Your task to perform on an android device: Open location settings Image 0: 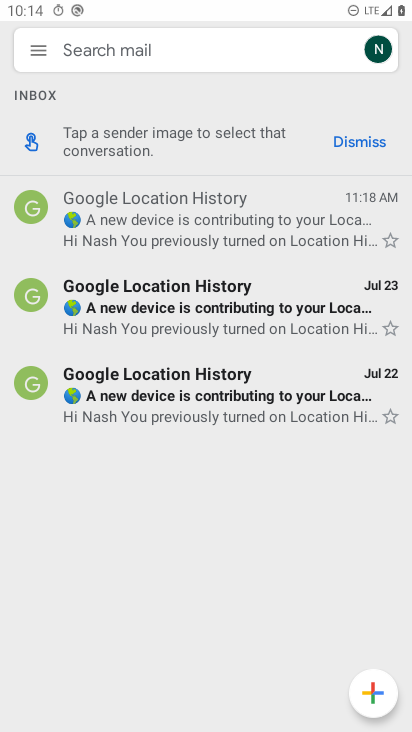
Step 0: press home button
Your task to perform on an android device: Open location settings Image 1: 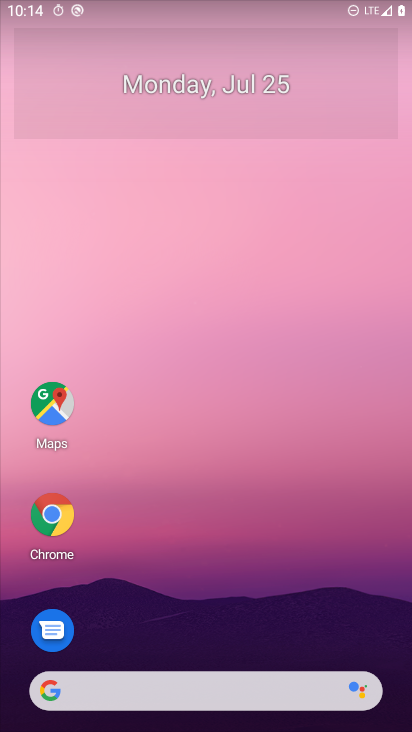
Step 1: drag from (23, 695) to (192, 173)
Your task to perform on an android device: Open location settings Image 2: 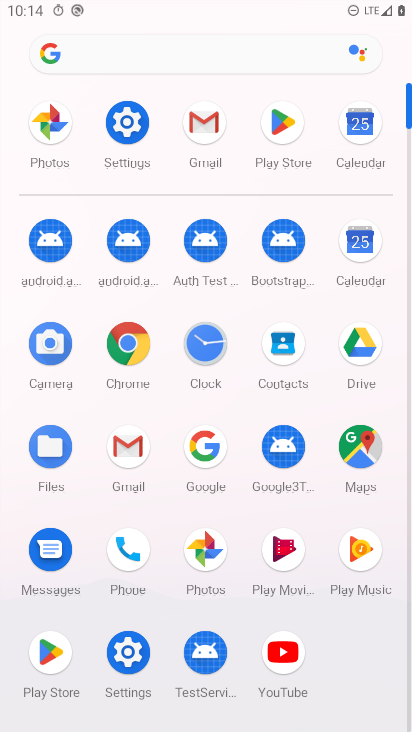
Step 2: click (126, 676)
Your task to perform on an android device: Open location settings Image 3: 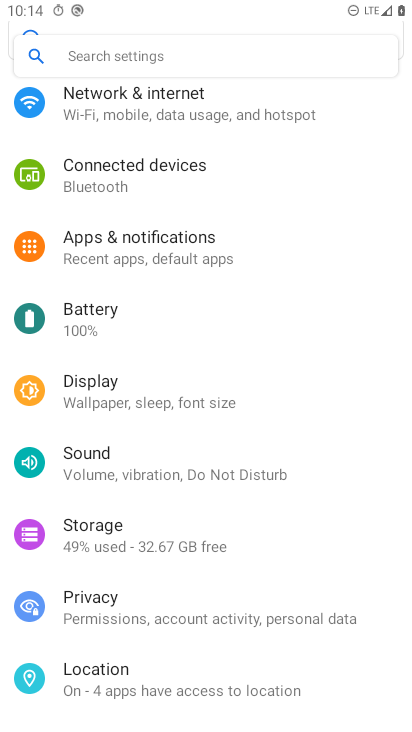
Step 3: click (93, 667)
Your task to perform on an android device: Open location settings Image 4: 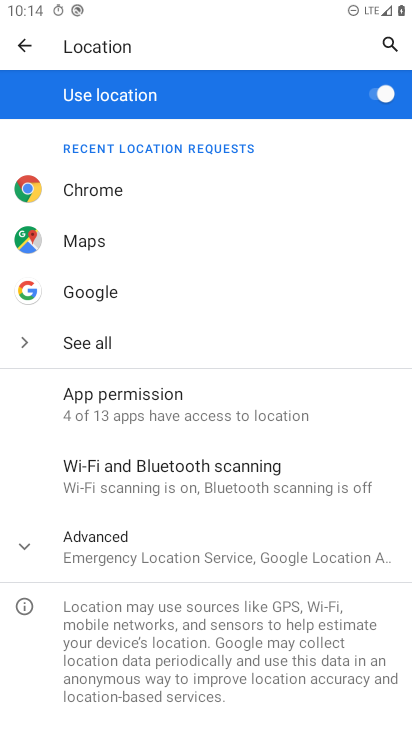
Step 4: click (110, 543)
Your task to perform on an android device: Open location settings Image 5: 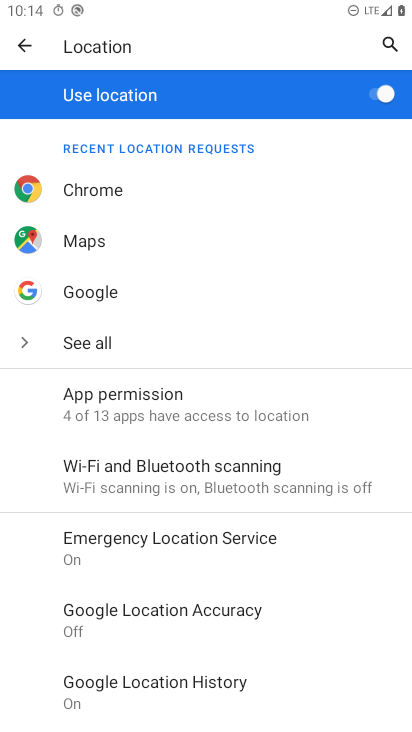
Step 5: task complete